Your task to perform on an android device: toggle airplane mode Image 0: 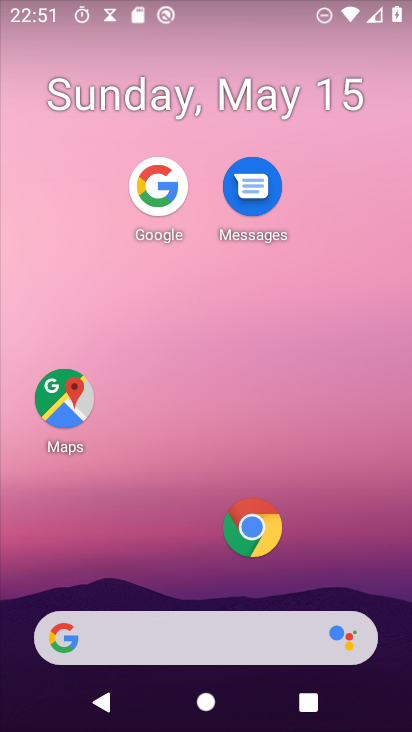
Step 0: drag from (141, 640) to (276, 148)
Your task to perform on an android device: toggle airplane mode Image 1: 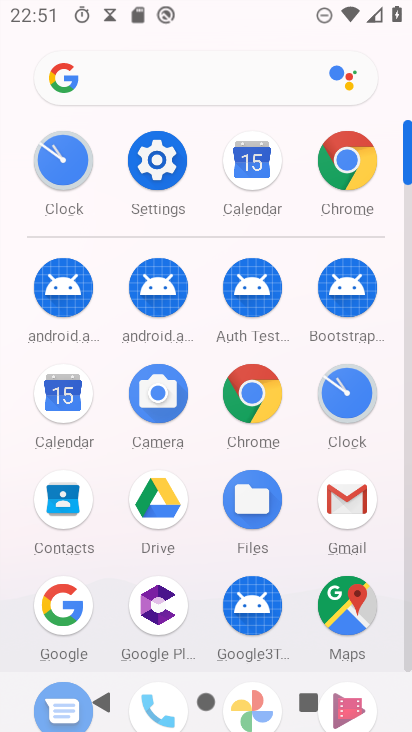
Step 1: click (155, 172)
Your task to perform on an android device: toggle airplane mode Image 2: 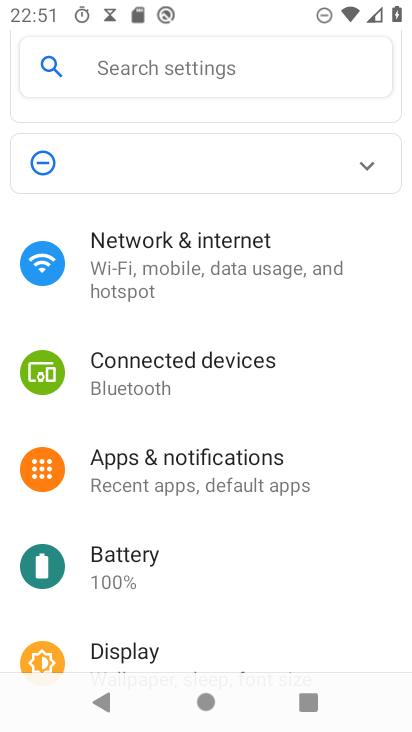
Step 2: click (245, 247)
Your task to perform on an android device: toggle airplane mode Image 3: 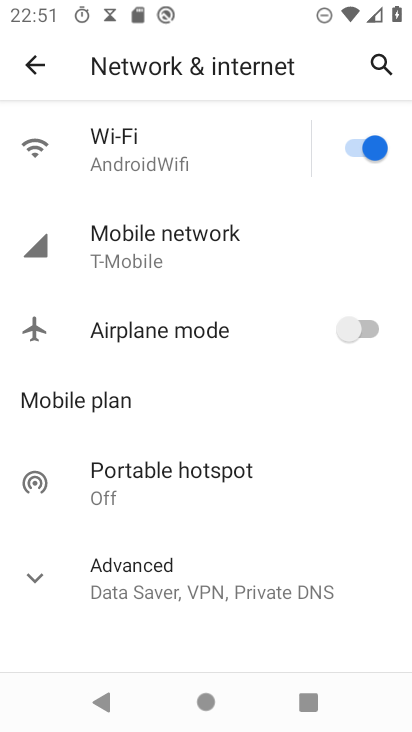
Step 3: click (365, 330)
Your task to perform on an android device: toggle airplane mode Image 4: 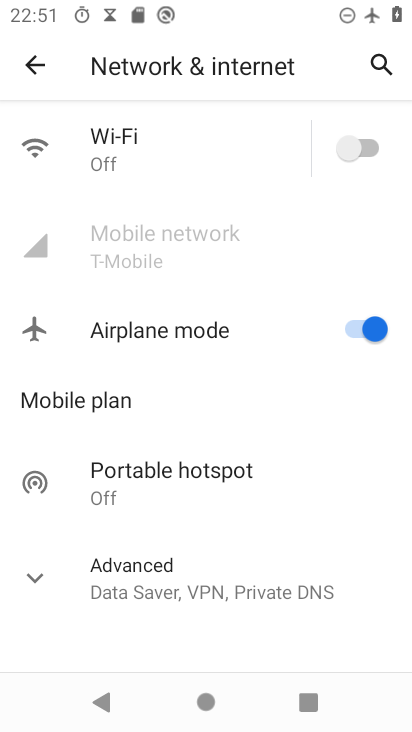
Step 4: task complete